Your task to perform on an android device: turn on notifications settings in the gmail app Image 0: 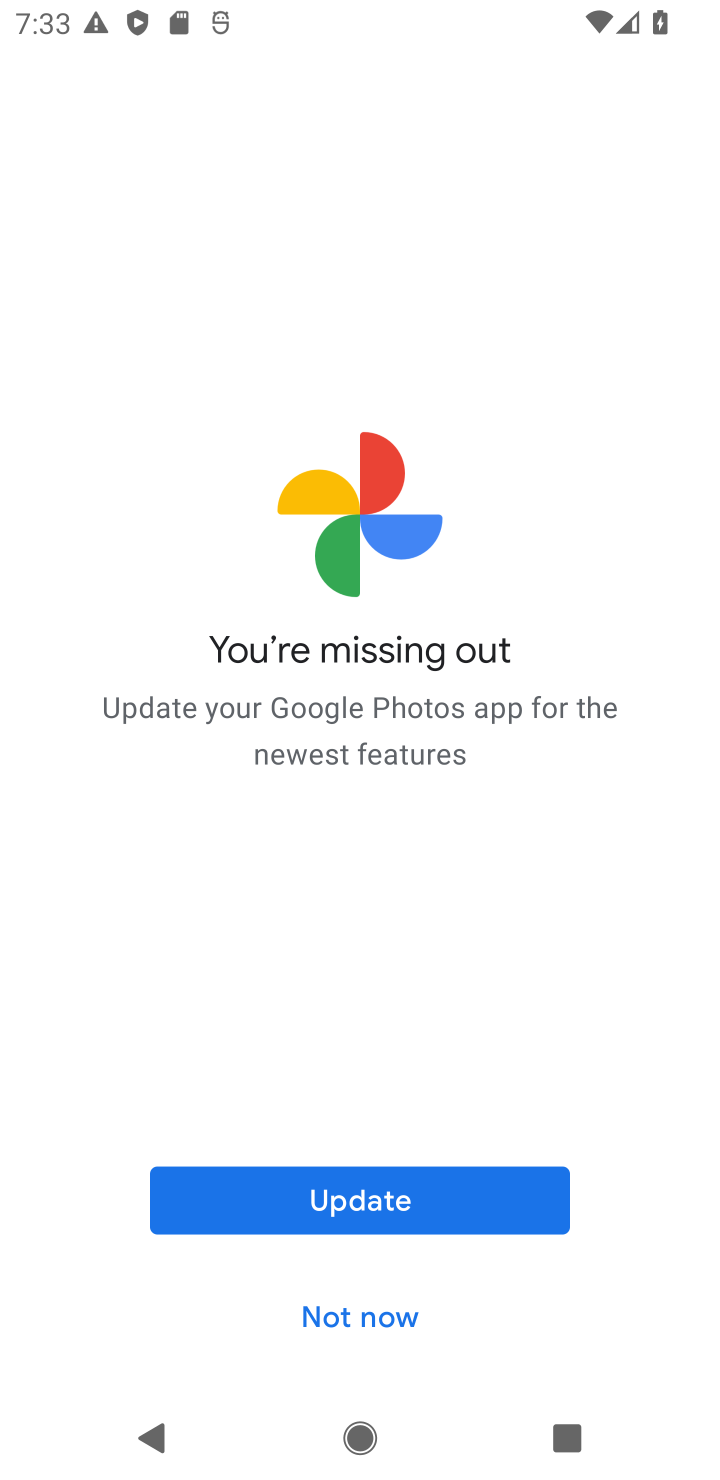
Step 0: press home button
Your task to perform on an android device: turn on notifications settings in the gmail app Image 1: 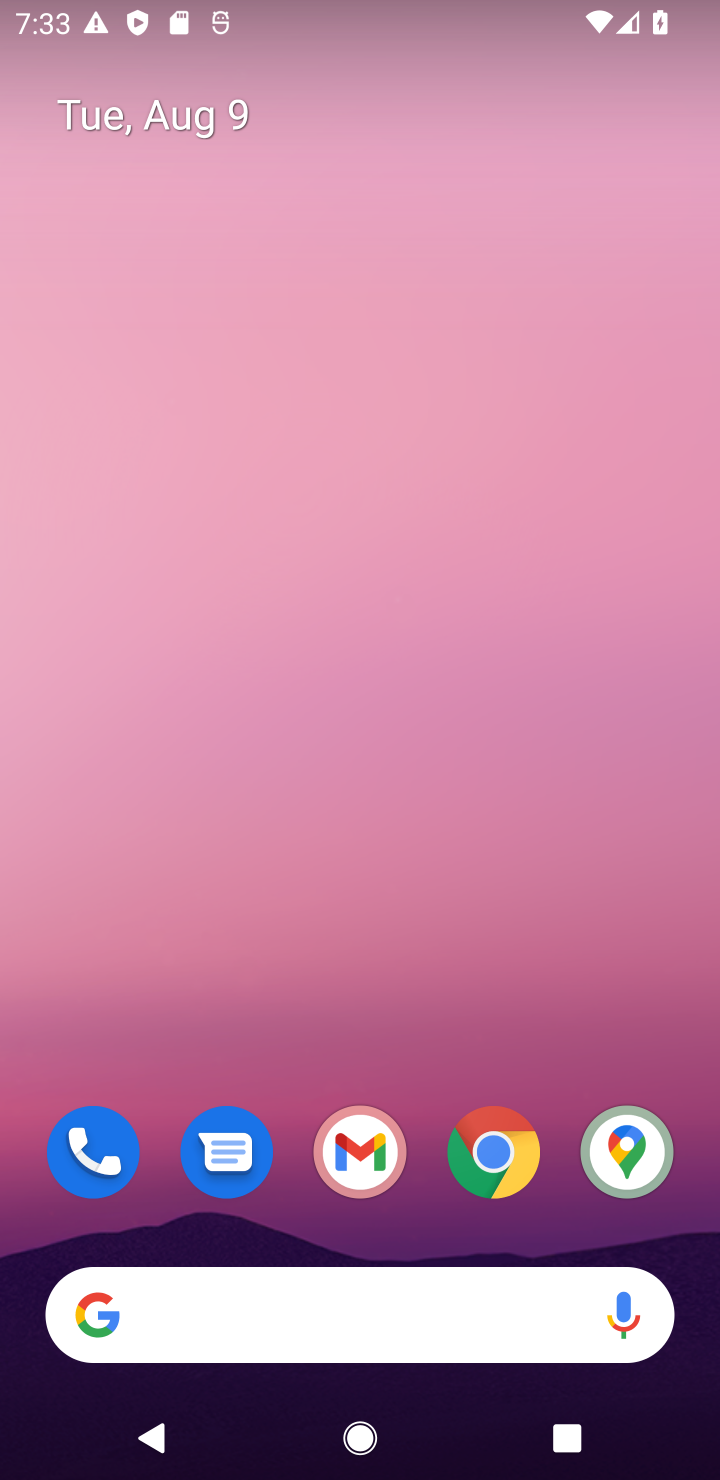
Step 1: drag from (440, 1074) to (365, 396)
Your task to perform on an android device: turn on notifications settings in the gmail app Image 2: 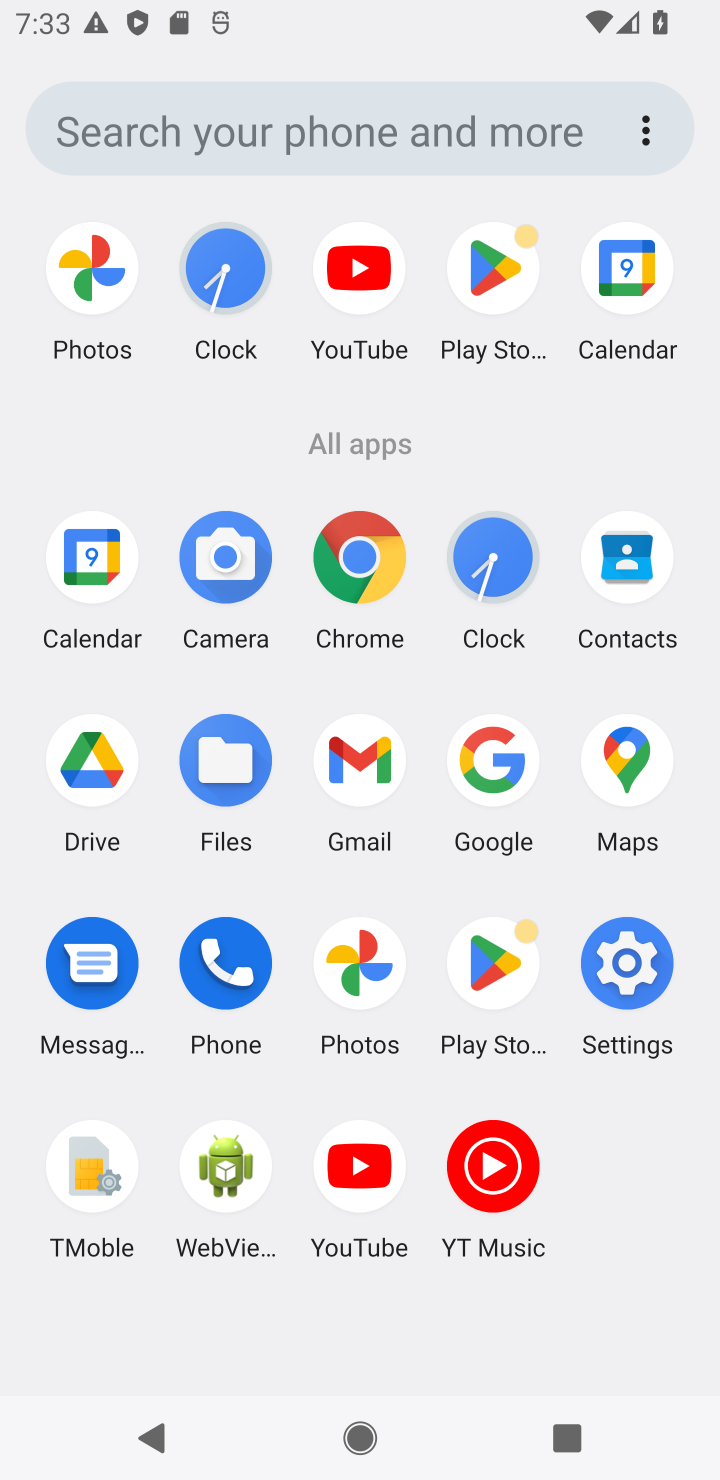
Step 2: click (628, 982)
Your task to perform on an android device: turn on notifications settings in the gmail app Image 3: 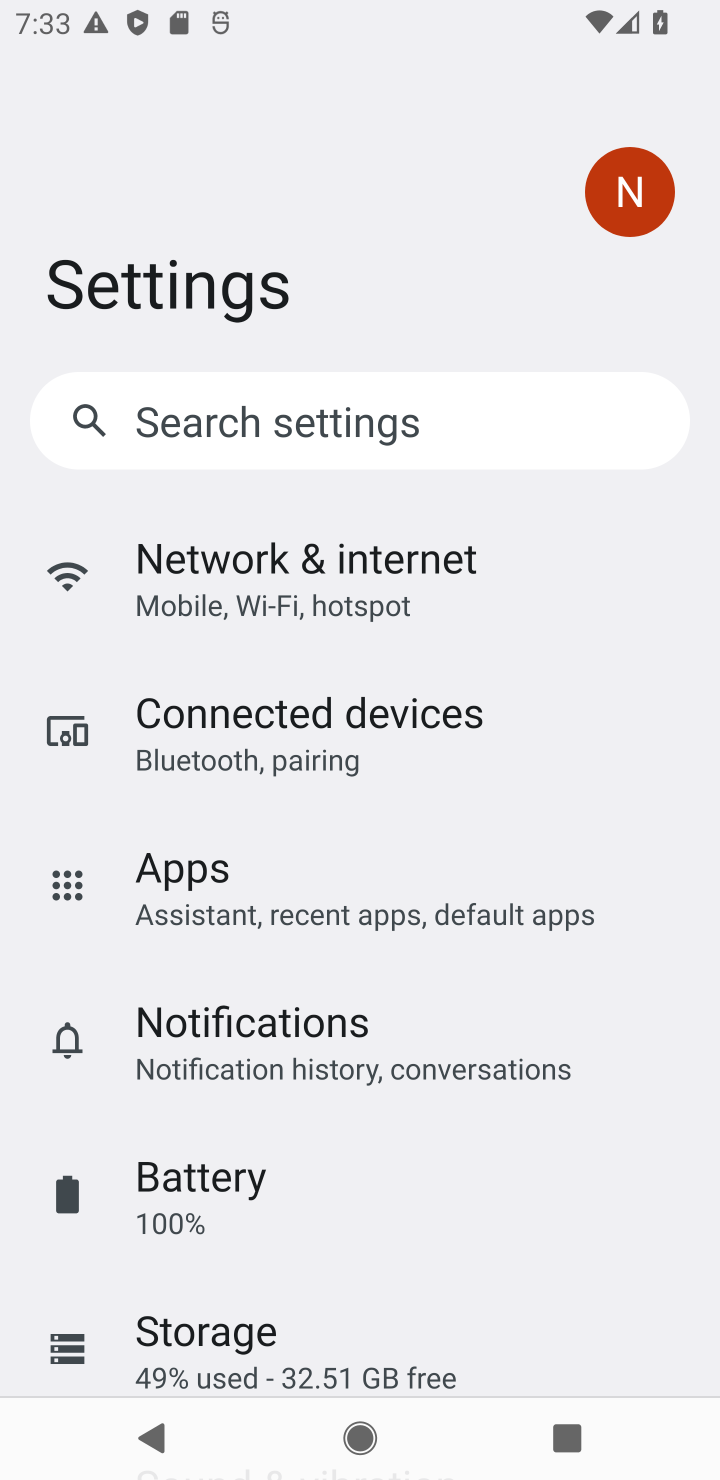
Step 3: click (340, 1018)
Your task to perform on an android device: turn on notifications settings in the gmail app Image 4: 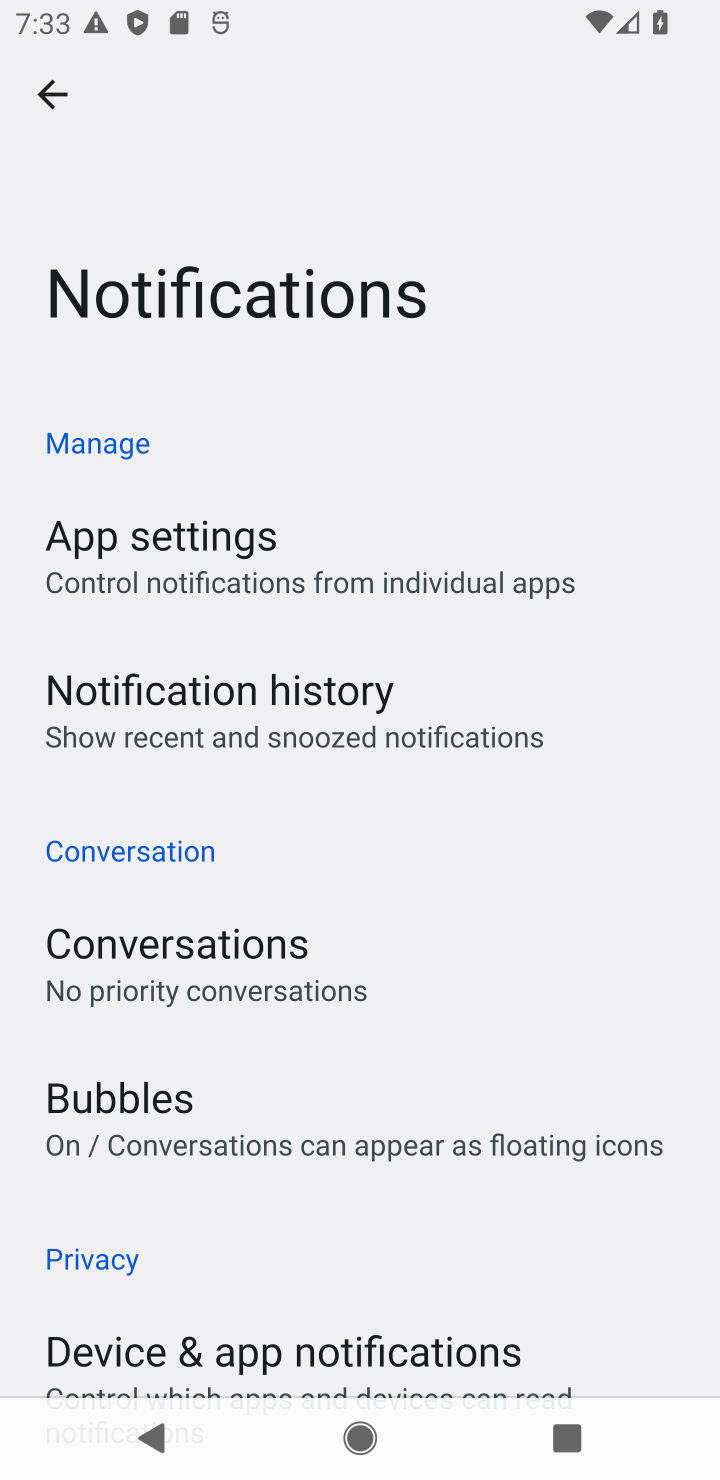
Step 4: click (152, 512)
Your task to perform on an android device: turn on notifications settings in the gmail app Image 5: 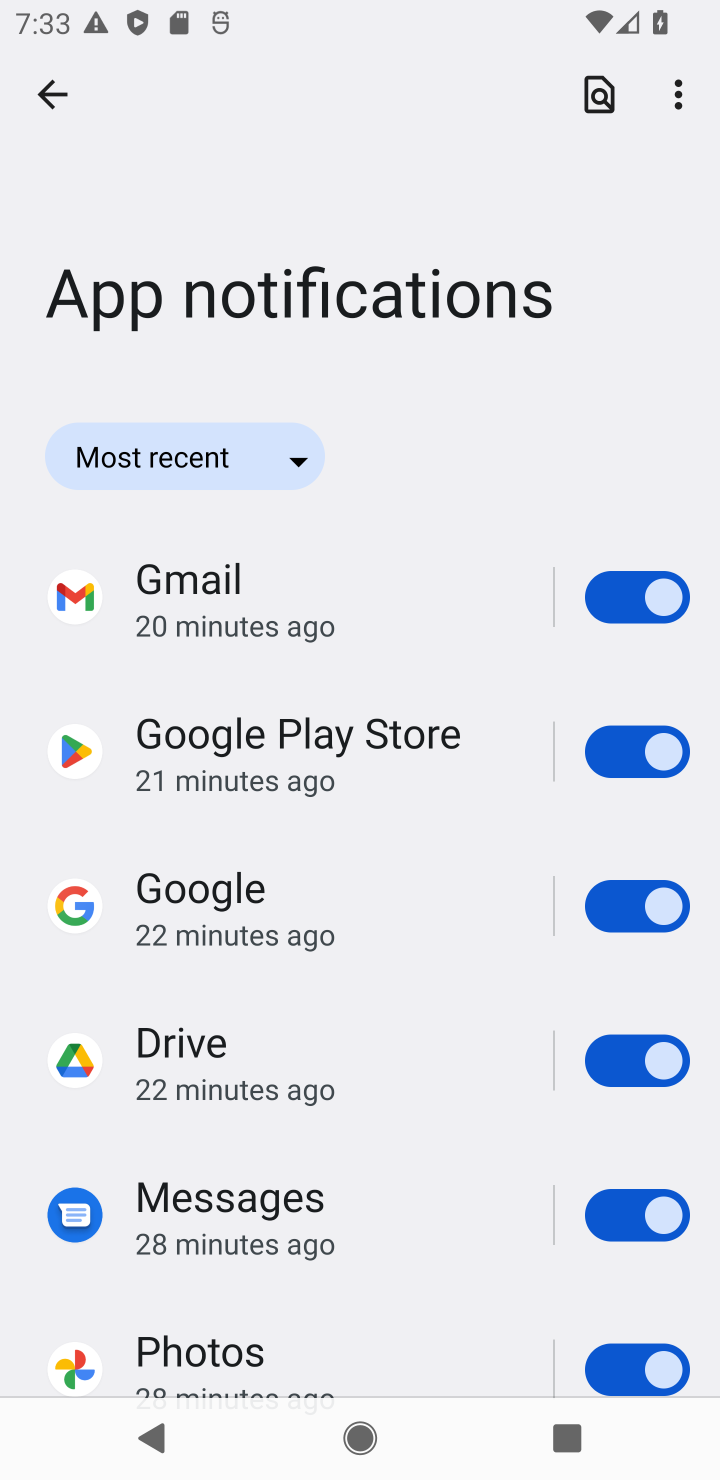
Step 5: click (621, 592)
Your task to perform on an android device: turn on notifications settings in the gmail app Image 6: 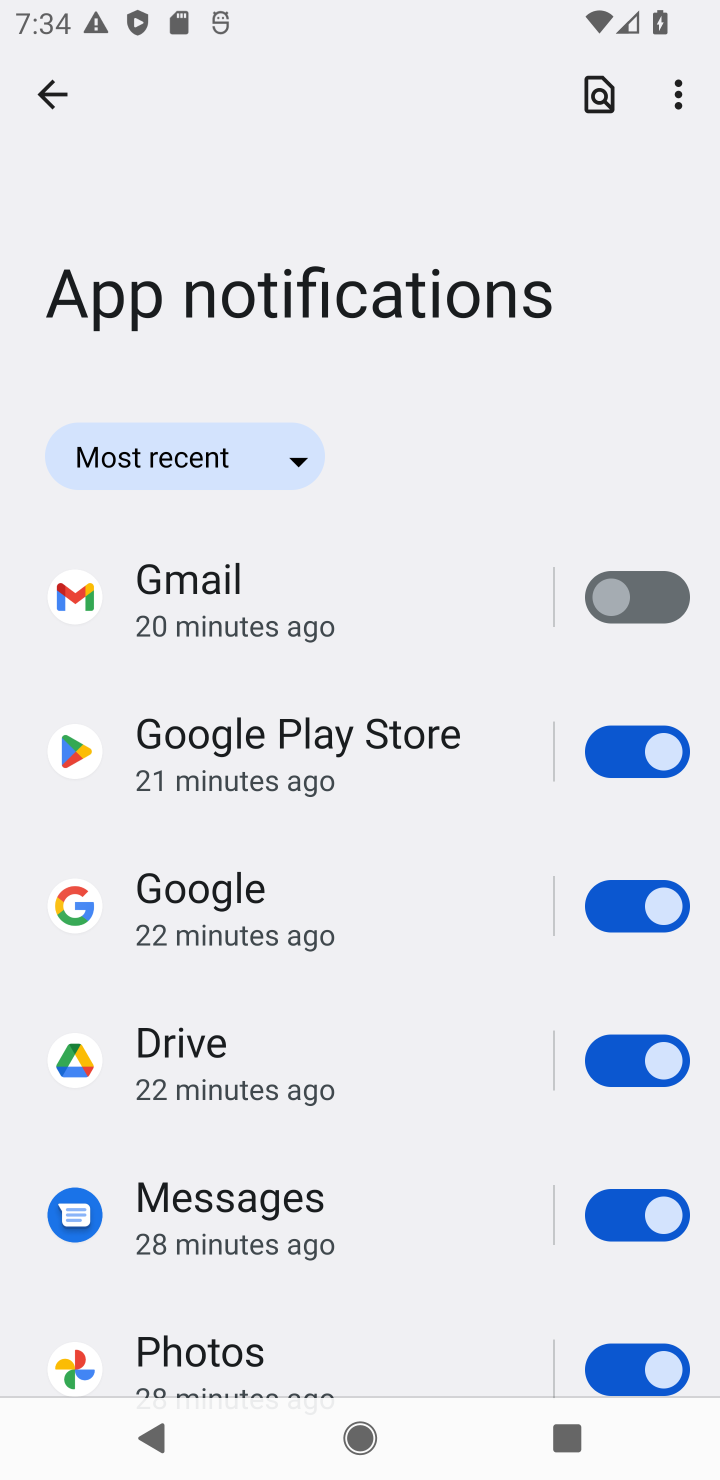
Step 6: task complete